Your task to perform on an android device: Open settings Image 0: 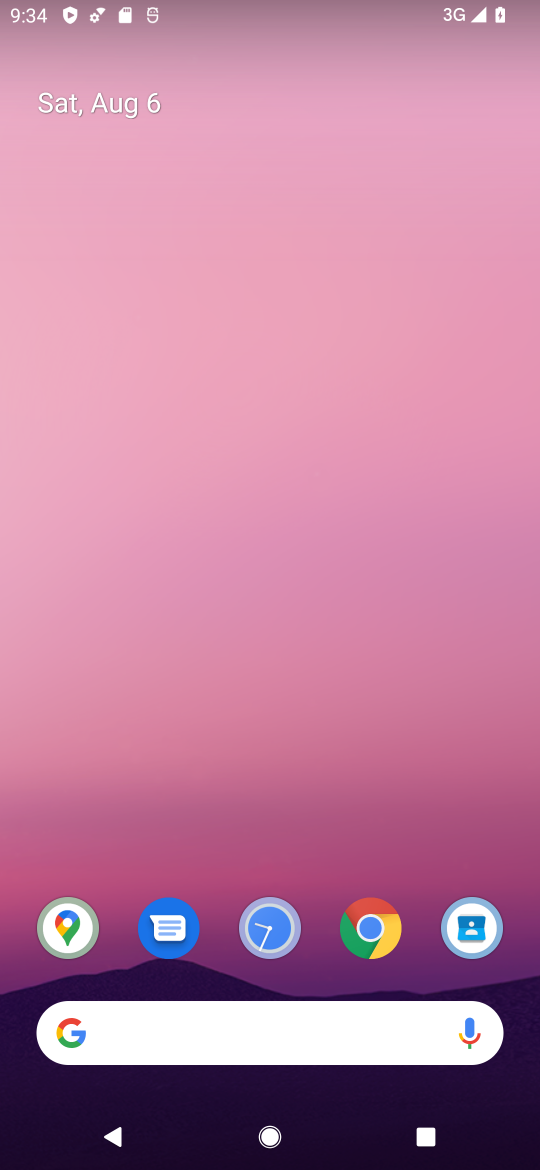
Step 0: drag from (263, 795) to (239, 169)
Your task to perform on an android device: Open settings Image 1: 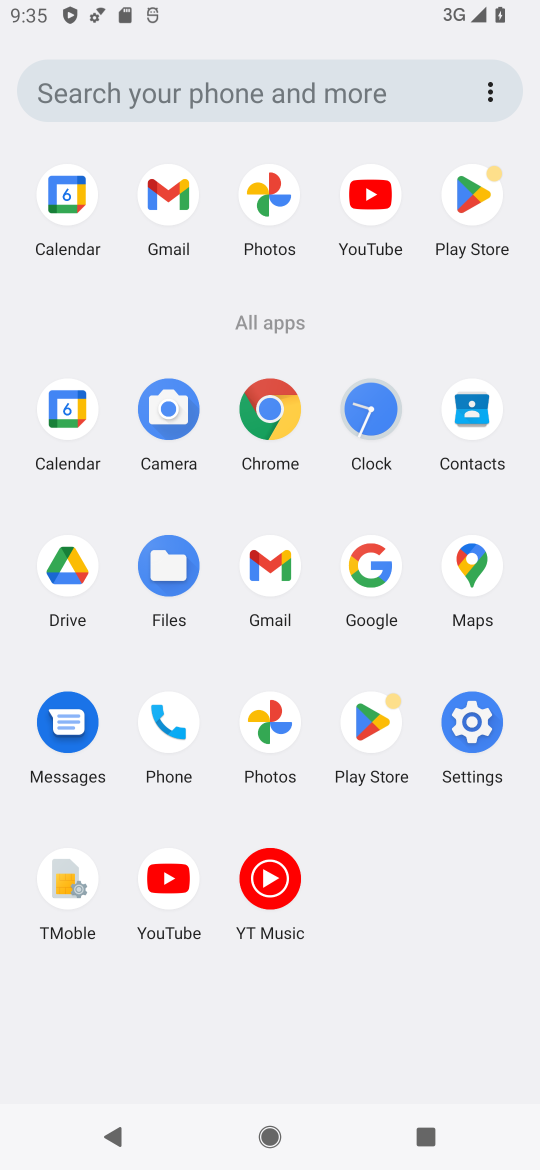
Step 1: click (459, 717)
Your task to perform on an android device: Open settings Image 2: 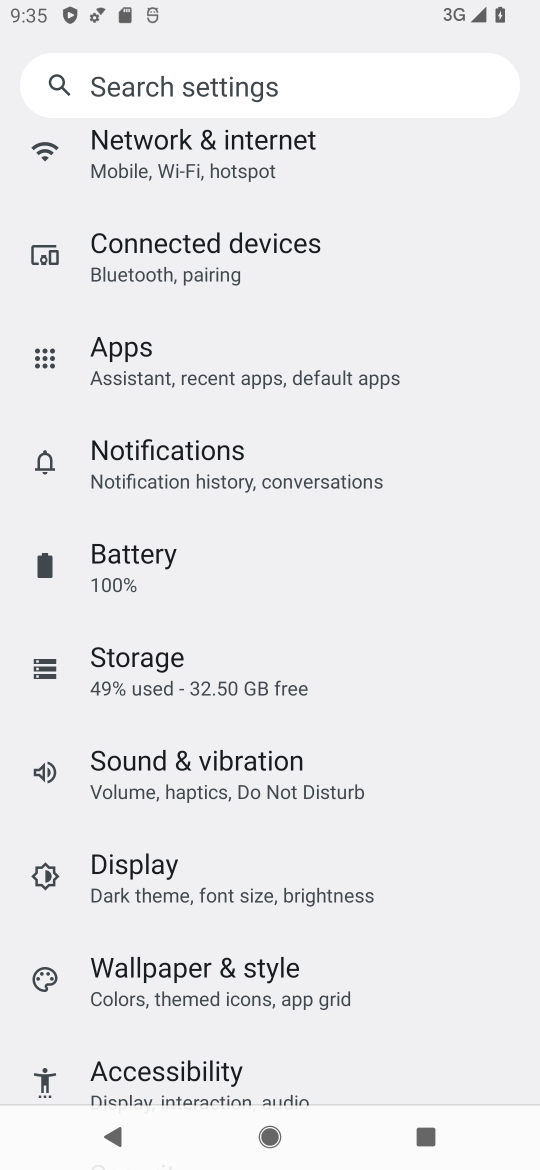
Step 2: task complete